Your task to perform on an android device: open chrome privacy settings Image 0: 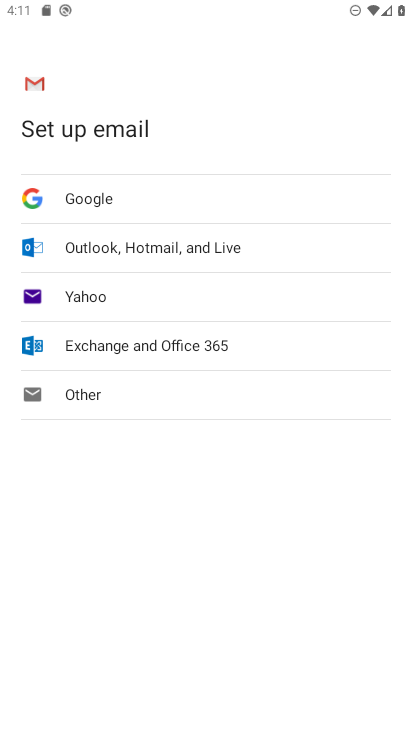
Step 0: press home button
Your task to perform on an android device: open chrome privacy settings Image 1: 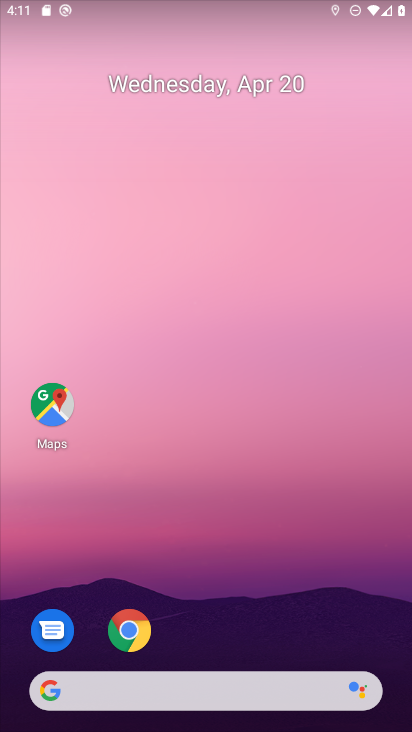
Step 1: drag from (234, 435) to (263, 62)
Your task to perform on an android device: open chrome privacy settings Image 2: 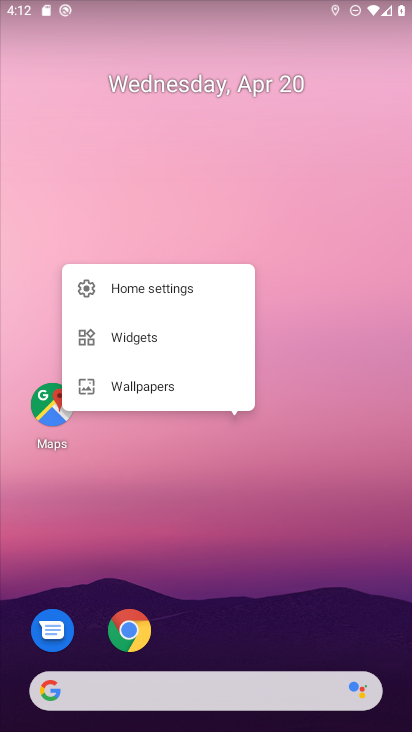
Step 2: click (320, 468)
Your task to perform on an android device: open chrome privacy settings Image 3: 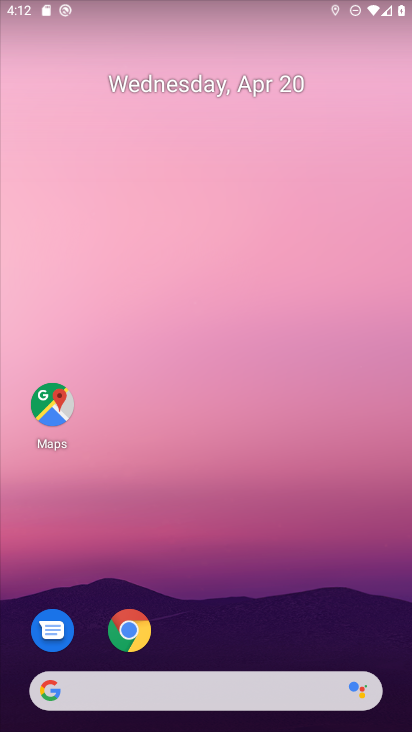
Step 3: drag from (351, 519) to (330, 5)
Your task to perform on an android device: open chrome privacy settings Image 4: 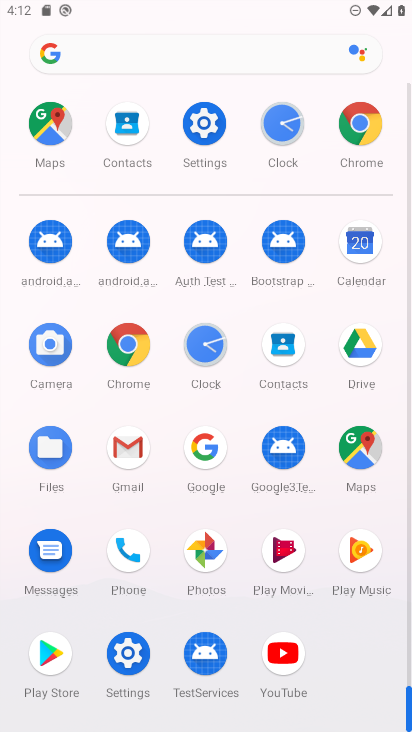
Step 4: click (139, 351)
Your task to perform on an android device: open chrome privacy settings Image 5: 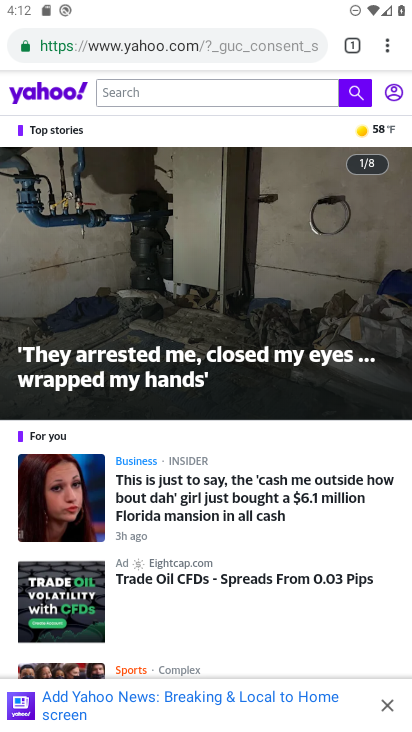
Step 5: drag from (386, 40) to (262, 609)
Your task to perform on an android device: open chrome privacy settings Image 6: 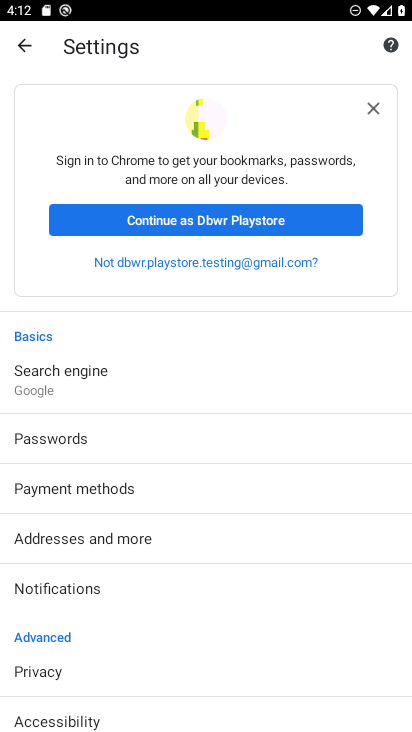
Step 6: click (79, 677)
Your task to perform on an android device: open chrome privacy settings Image 7: 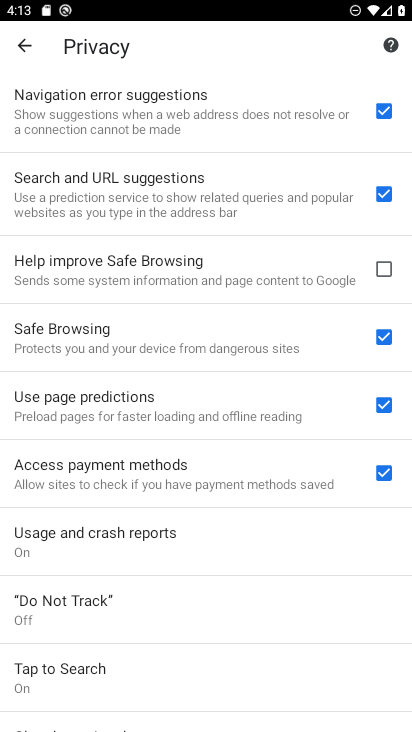
Step 7: task complete